Your task to perform on an android device: add a contact Image 0: 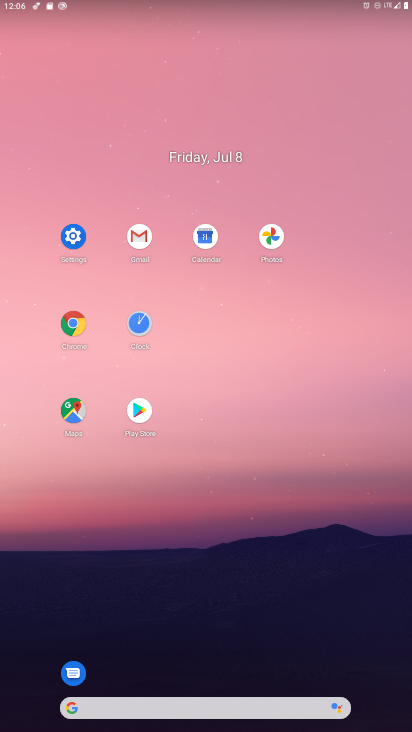
Step 0: drag from (268, 645) to (344, 131)
Your task to perform on an android device: add a contact Image 1: 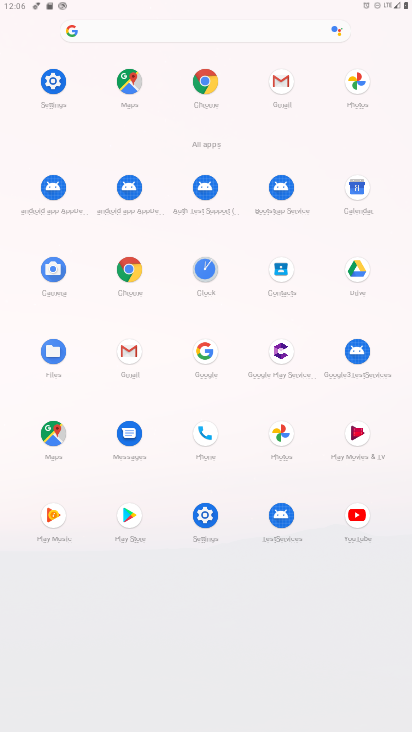
Step 1: click (286, 265)
Your task to perform on an android device: add a contact Image 2: 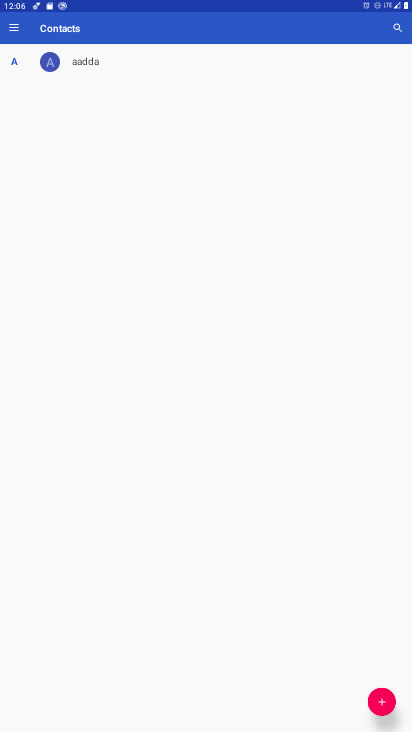
Step 2: click (389, 703)
Your task to perform on an android device: add a contact Image 3: 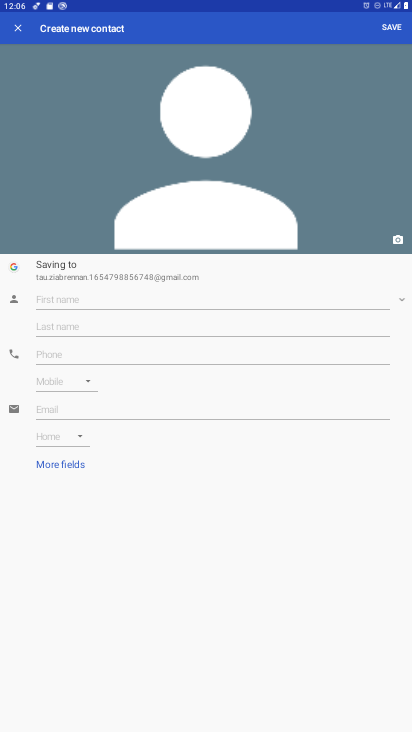
Step 3: click (103, 291)
Your task to perform on an android device: add a contact Image 4: 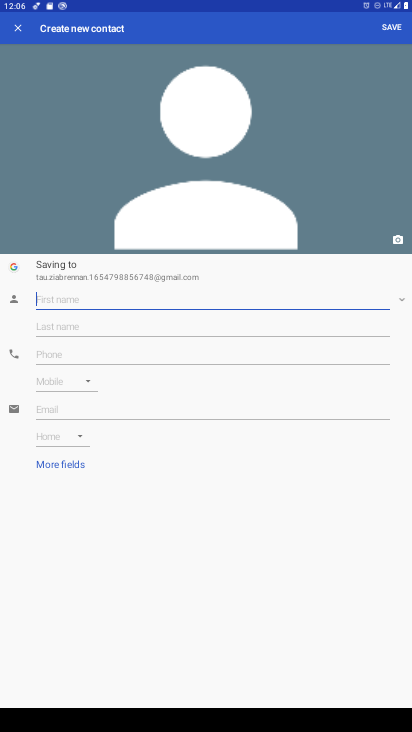
Step 4: type "uuytyu"
Your task to perform on an android device: add a contact Image 5: 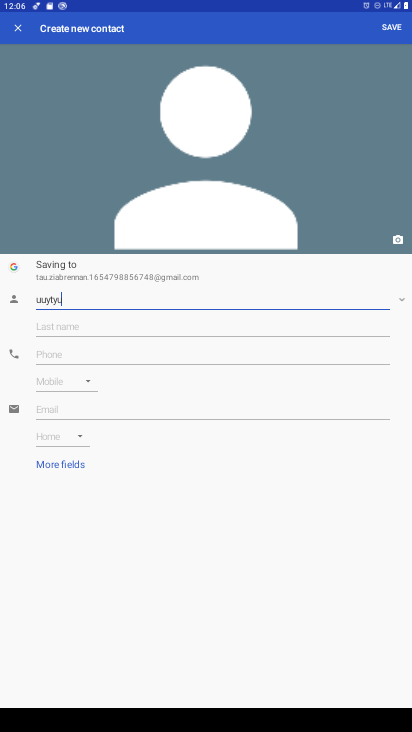
Step 5: click (170, 331)
Your task to perform on an android device: add a contact Image 6: 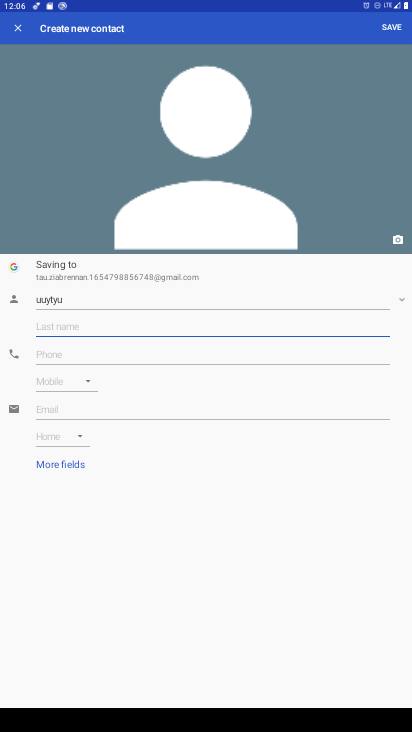
Step 6: type "8898998970"
Your task to perform on an android device: add a contact Image 7: 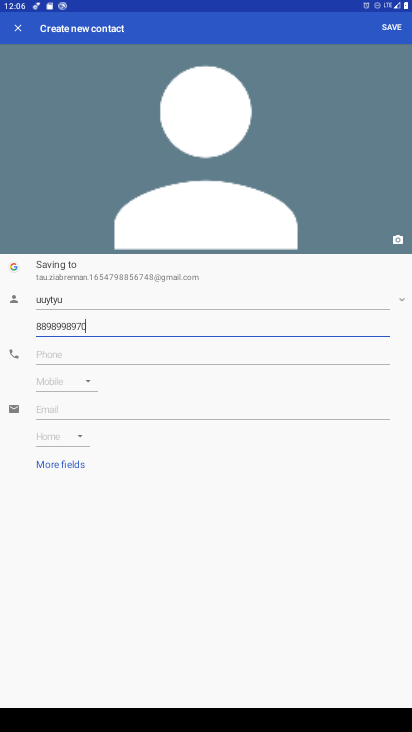
Step 7: click (381, 31)
Your task to perform on an android device: add a contact Image 8: 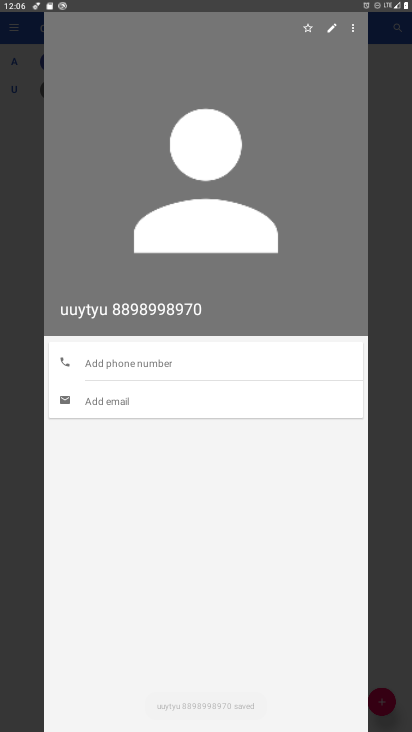
Step 8: task complete